Your task to perform on an android device: Search for Italian restaurants on Maps Image 0: 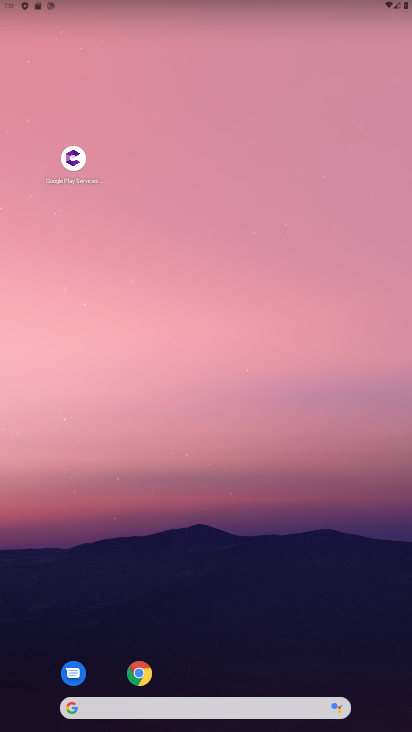
Step 0: drag from (254, 471) to (405, 41)
Your task to perform on an android device: Search for Italian restaurants on Maps Image 1: 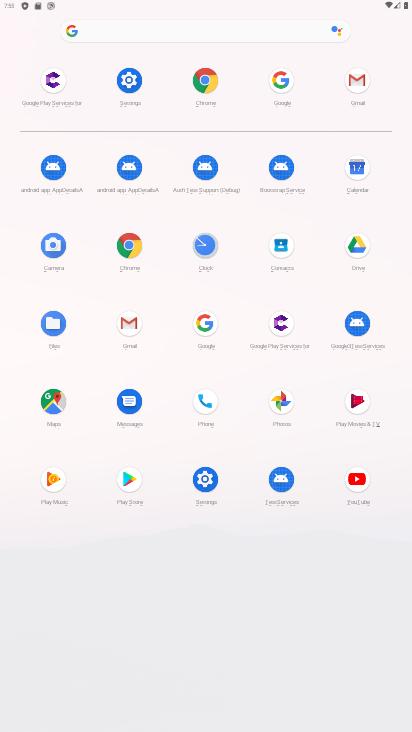
Step 1: click (51, 401)
Your task to perform on an android device: Search for Italian restaurants on Maps Image 2: 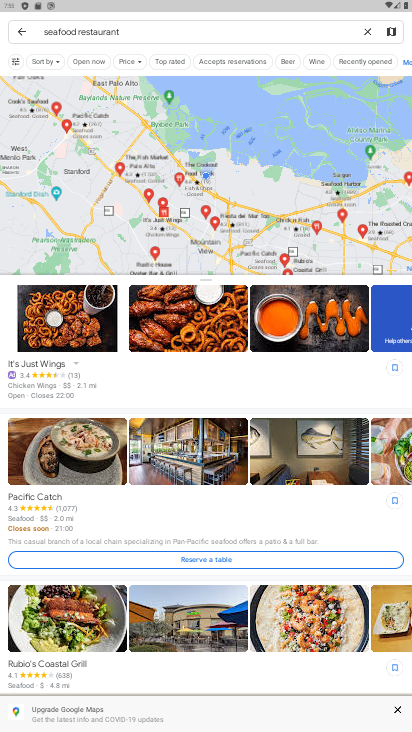
Step 2: click (358, 34)
Your task to perform on an android device: Search for Italian restaurants on Maps Image 3: 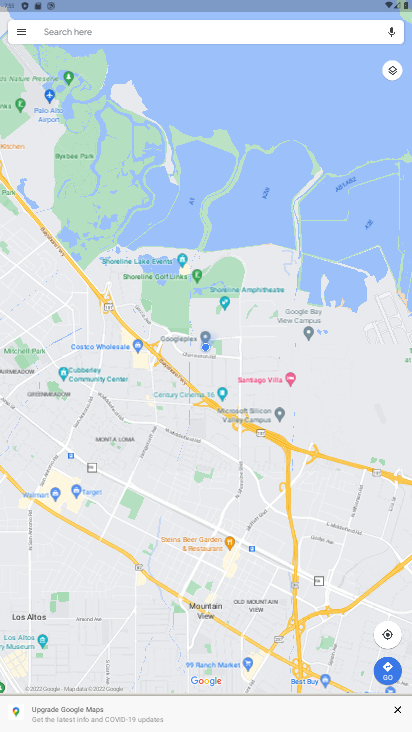
Step 3: click (92, 35)
Your task to perform on an android device: Search for Italian restaurants on Maps Image 4: 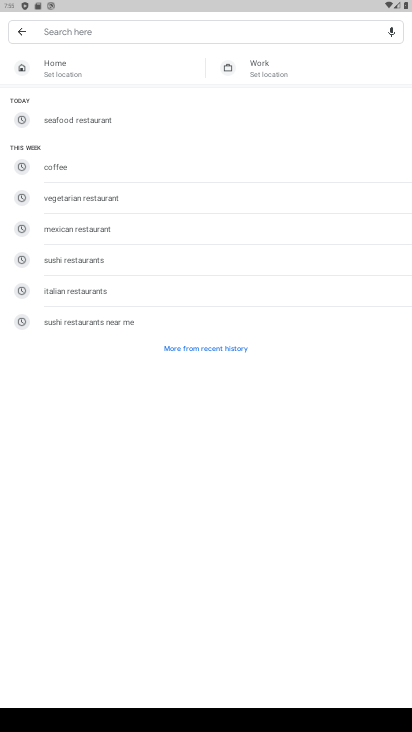
Step 4: click (61, 290)
Your task to perform on an android device: Search for Italian restaurants on Maps Image 5: 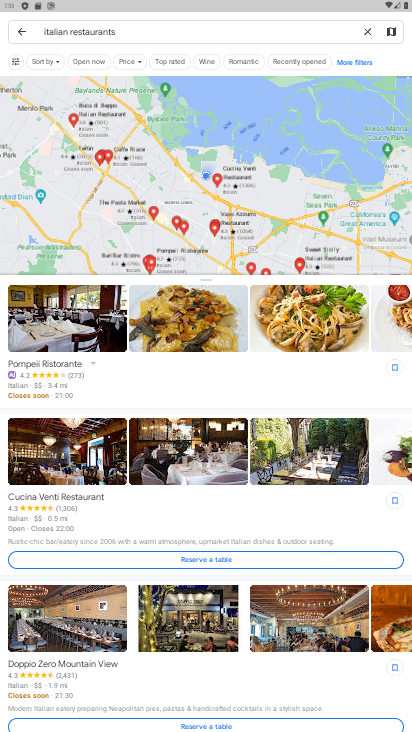
Step 5: task complete